Your task to perform on an android device: Go to display settings Image 0: 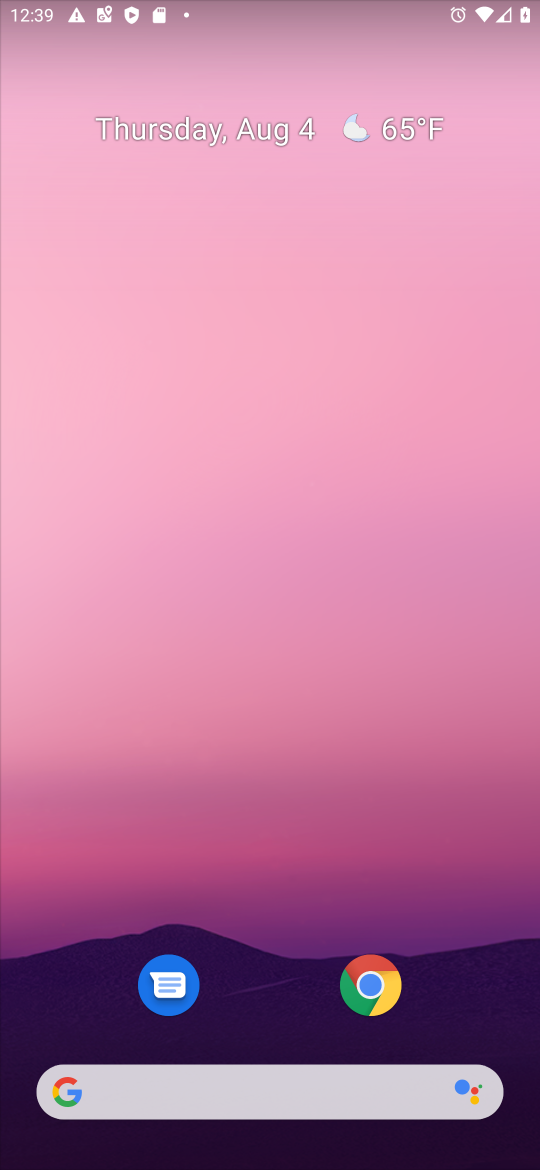
Step 0: drag from (277, 891) to (242, 56)
Your task to perform on an android device: Go to display settings Image 1: 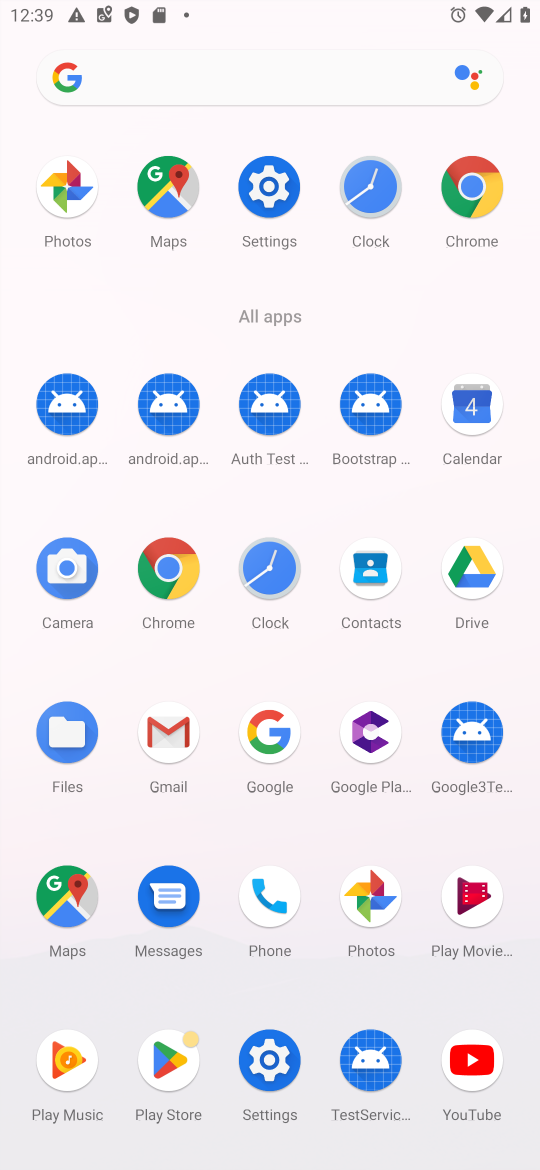
Step 1: click (272, 184)
Your task to perform on an android device: Go to display settings Image 2: 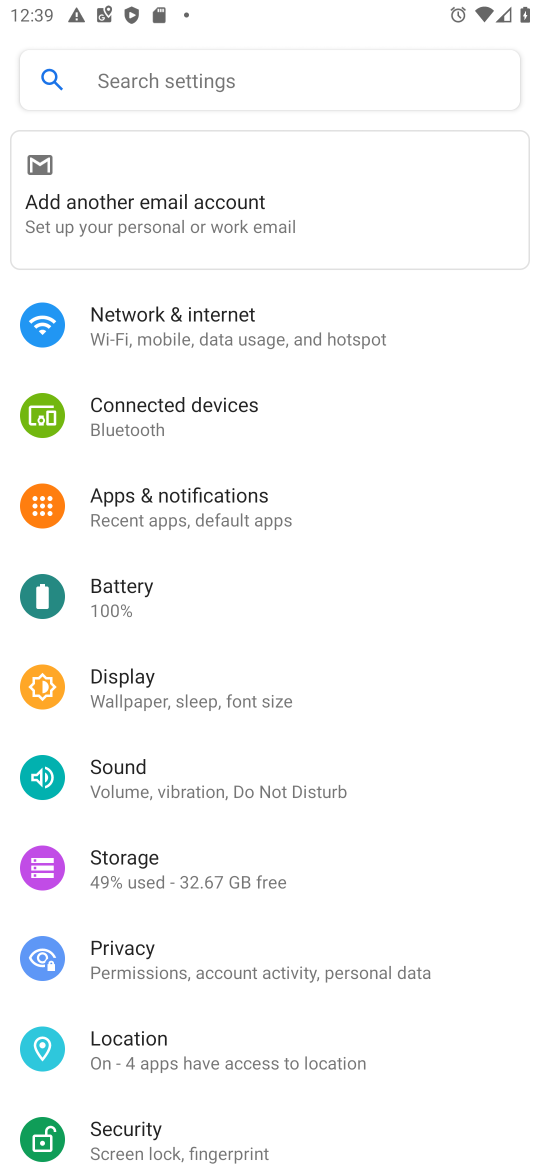
Step 2: click (131, 666)
Your task to perform on an android device: Go to display settings Image 3: 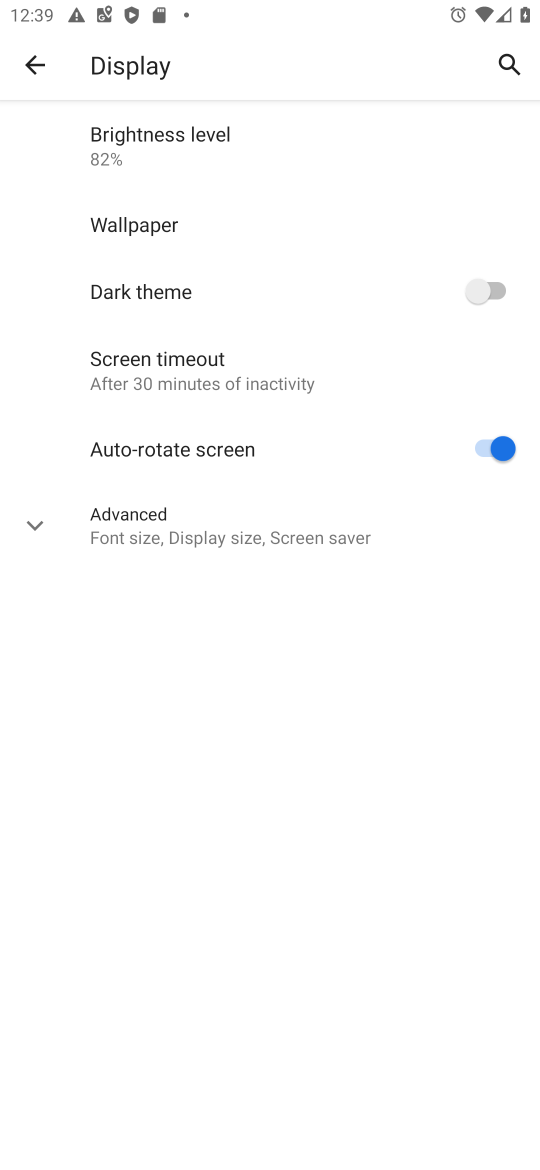
Step 3: task complete